Your task to perform on an android device: Go to Maps Image 0: 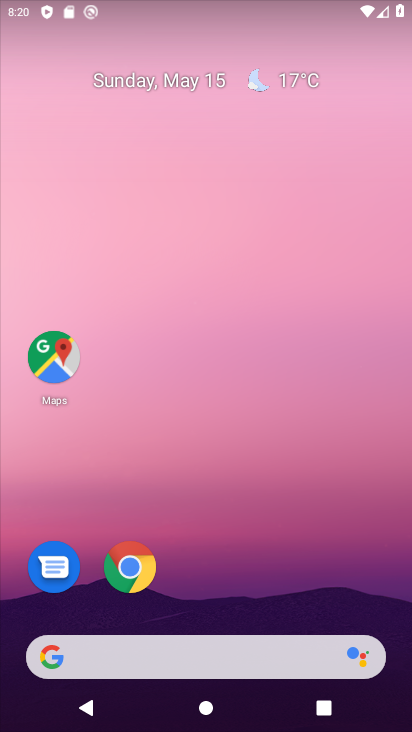
Step 0: click (66, 367)
Your task to perform on an android device: Go to Maps Image 1: 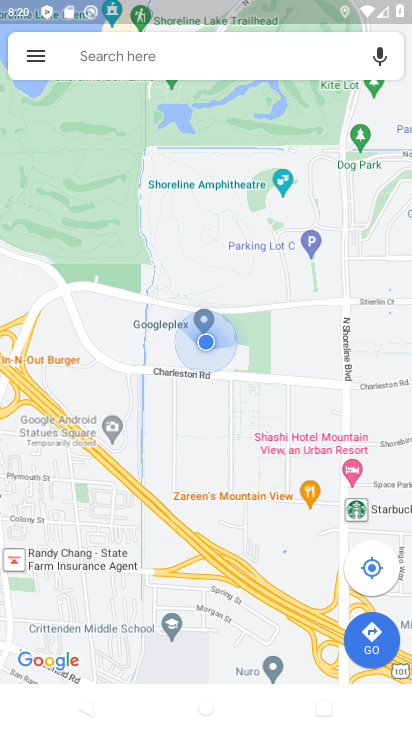
Step 1: task complete